Your task to perform on an android device: Set the phone to "Do not disturb". Image 0: 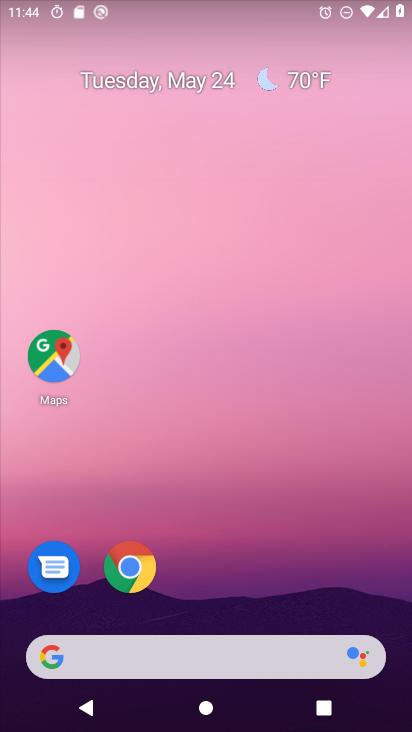
Step 0: drag from (386, 666) to (357, 246)
Your task to perform on an android device: Set the phone to "Do not disturb". Image 1: 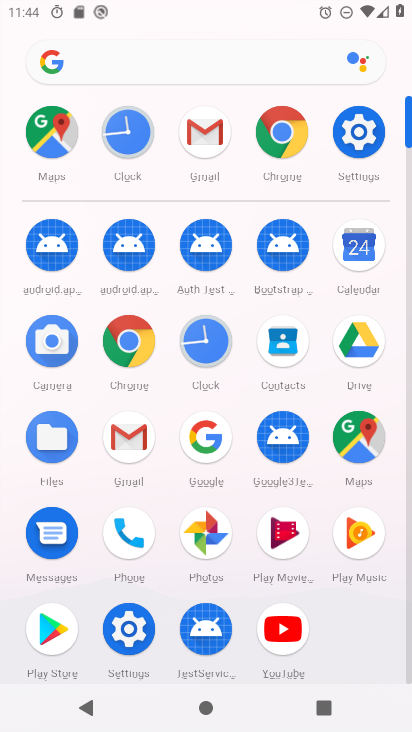
Step 1: click (369, 138)
Your task to perform on an android device: Set the phone to "Do not disturb". Image 2: 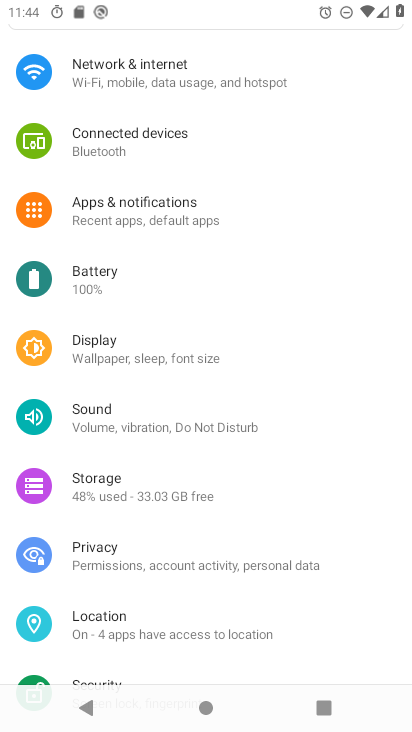
Step 2: click (112, 410)
Your task to perform on an android device: Set the phone to "Do not disturb". Image 3: 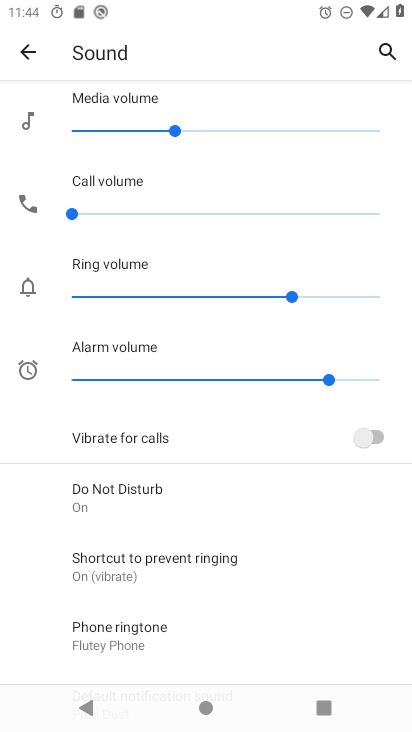
Step 3: task complete